Your task to perform on an android device: toggle show notifications on the lock screen Image 0: 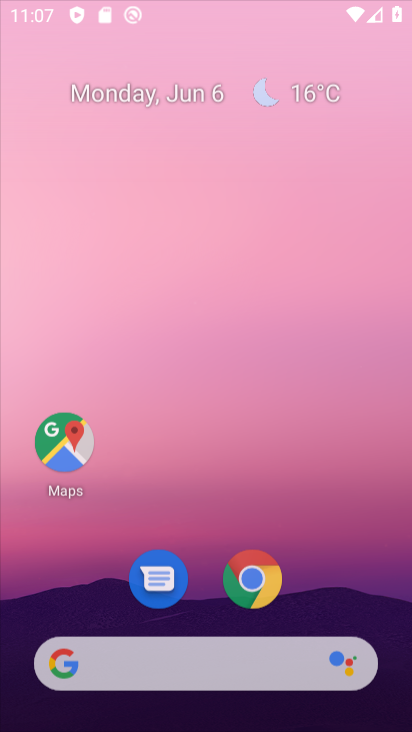
Step 0: press back button
Your task to perform on an android device: toggle show notifications on the lock screen Image 1: 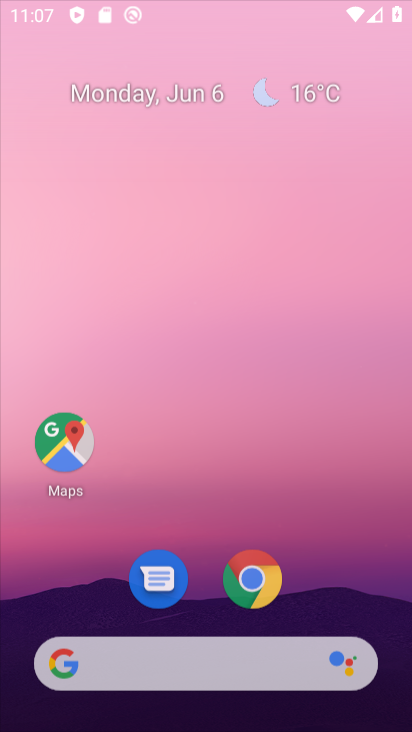
Step 1: drag from (359, 505) to (267, 28)
Your task to perform on an android device: toggle show notifications on the lock screen Image 2: 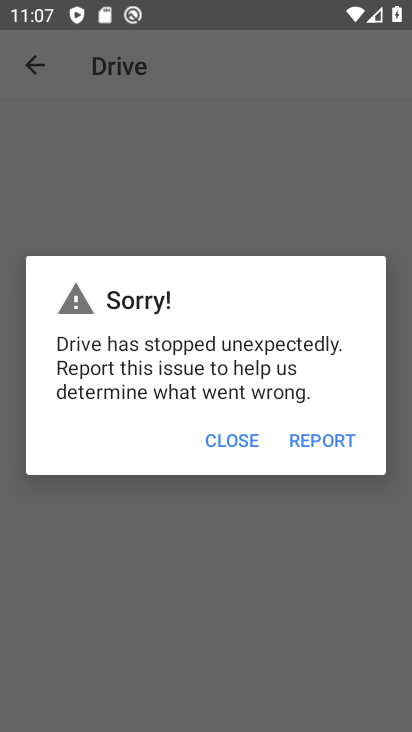
Step 2: press back button
Your task to perform on an android device: toggle show notifications on the lock screen Image 3: 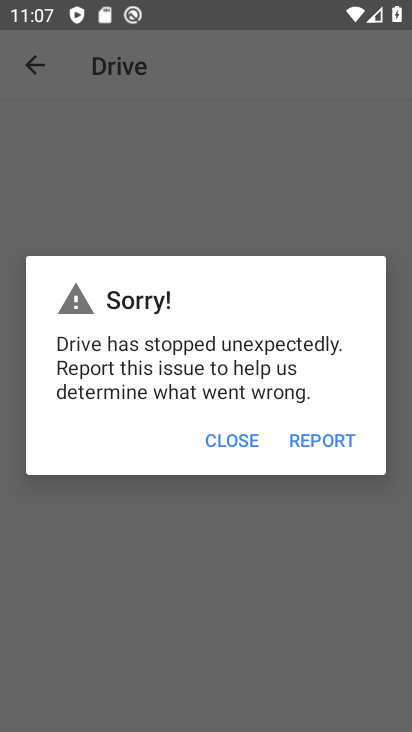
Step 3: press back button
Your task to perform on an android device: toggle show notifications on the lock screen Image 4: 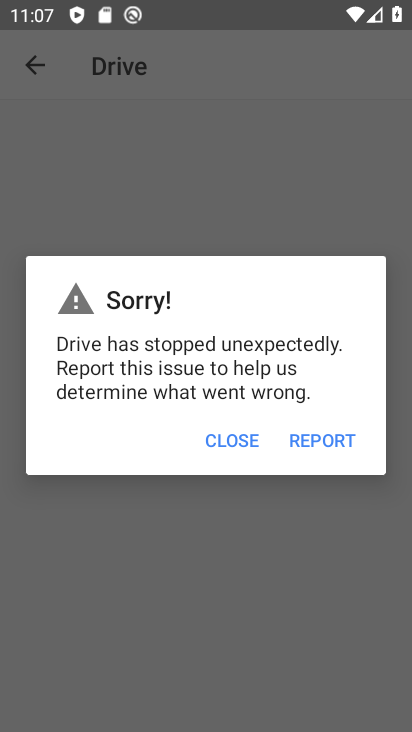
Step 4: press home button
Your task to perform on an android device: toggle show notifications on the lock screen Image 5: 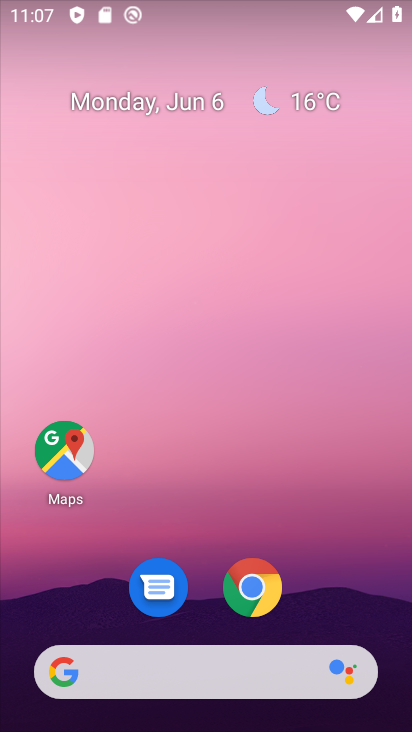
Step 5: drag from (366, 580) to (293, 2)
Your task to perform on an android device: toggle show notifications on the lock screen Image 6: 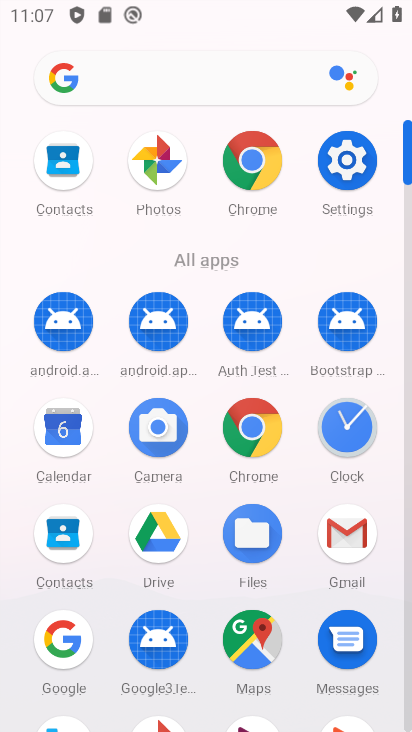
Step 6: drag from (9, 528) to (38, 210)
Your task to perform on an android device: toggle show notifications on the lock screen Image 7: 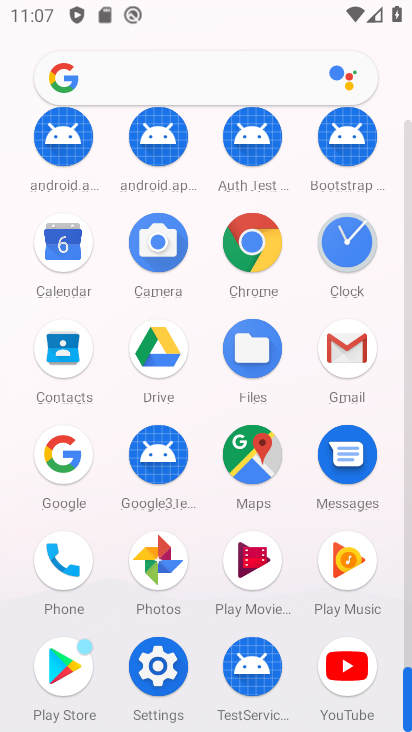
Step 7: click (156, 663)
Your task to perform on an android device: toggle show notifications on the lock screen Image 8: 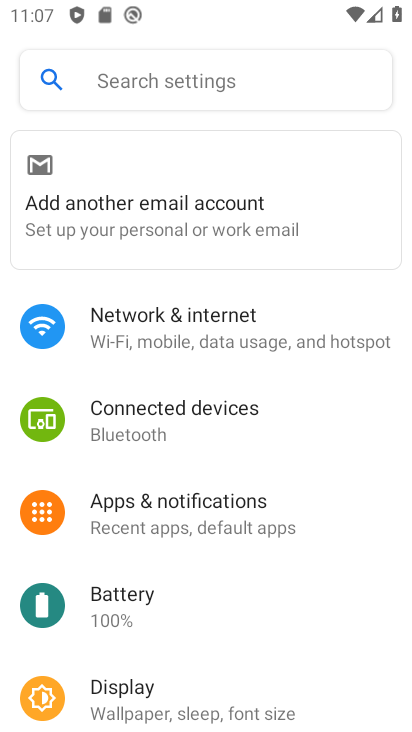
Step 8: click (208, 523)
Your task to perform on an android device: toggle show notifications on the lock screen Image 9: 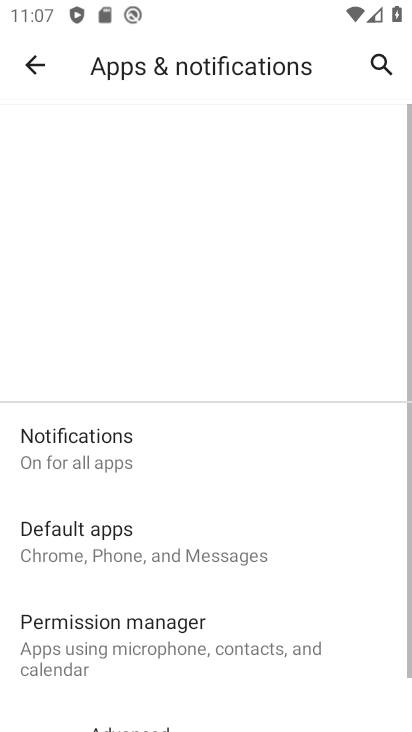
Step 9: click (25, 702)
Your task to perform on an android device: toggle show notifications on the lock screen Image 10: 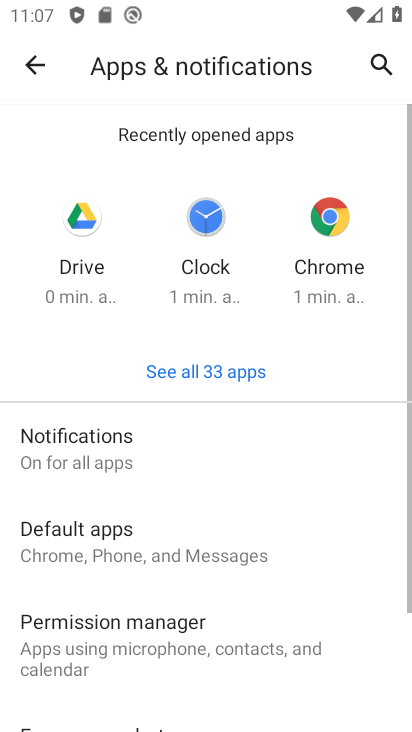
Step 10: drag from (301, 636) to (349, 356)
Your task to perform on an android device: toggle show notifications on the lock screen Image 11: 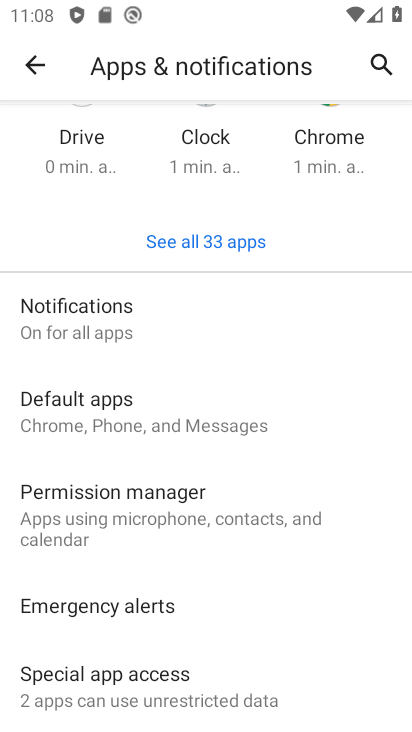
Step 11: click (152, 320)
Your task to perform on an android device: toggle show notifications on the lock screen Image 12: 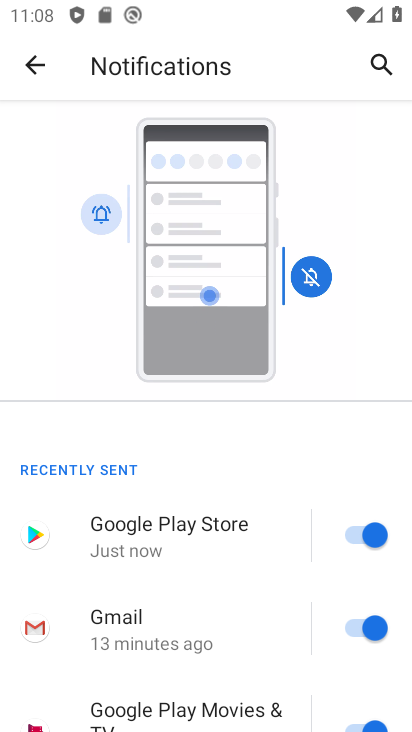
Step 12: drag from (282, 623) to (322, 147)
Your task to perform on an android device: toggle show notifications on the lock screen Image 13: 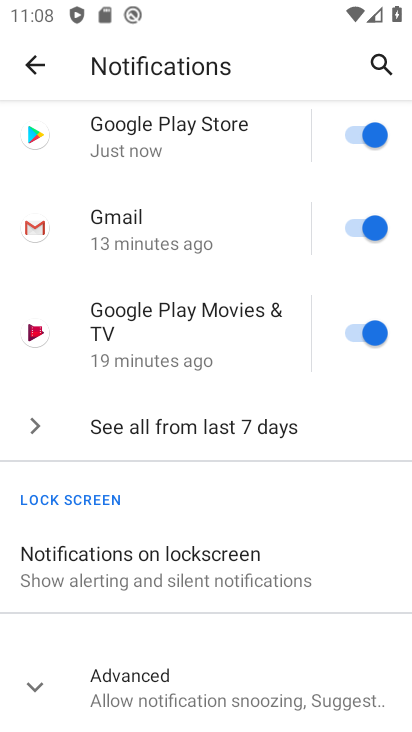
Step 13: click (37, 679)
Your task to perform on an android device: toggle show notifications on the lock screen Image 14: 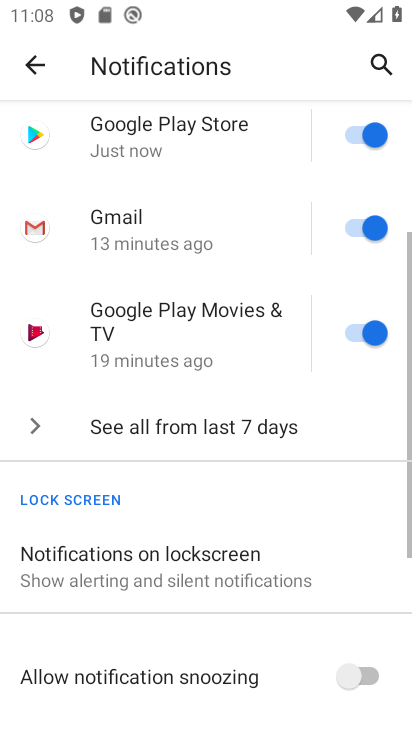
Step 14: drag from (258, 665) to (297, 318)
Your task to perform on an android device: toggle show notifications on the lock screen Image 15: 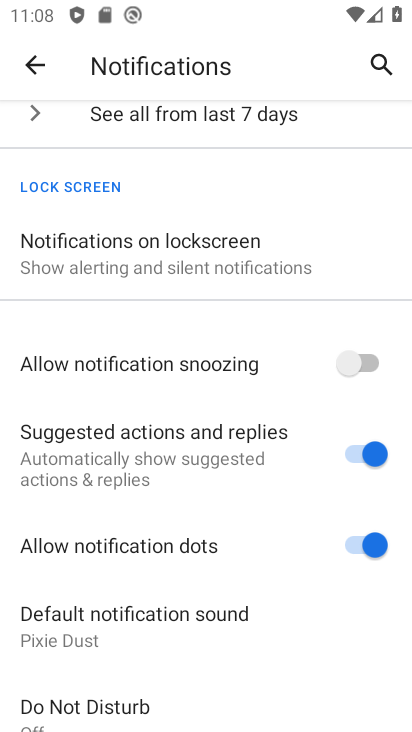
Step 15: click (271, 253)
Your task to perform on an android device: toggle show notifications on the lock screen Image 16: 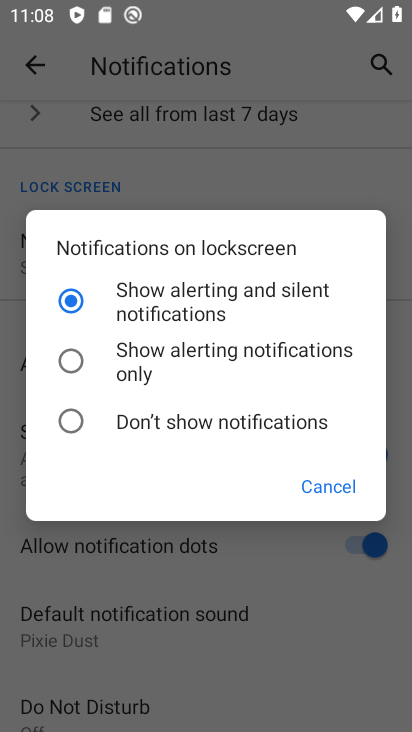
Step 16: click (219, 356)
Your task to perform on an android device: toggle show notifications on the lock screen Image 17: 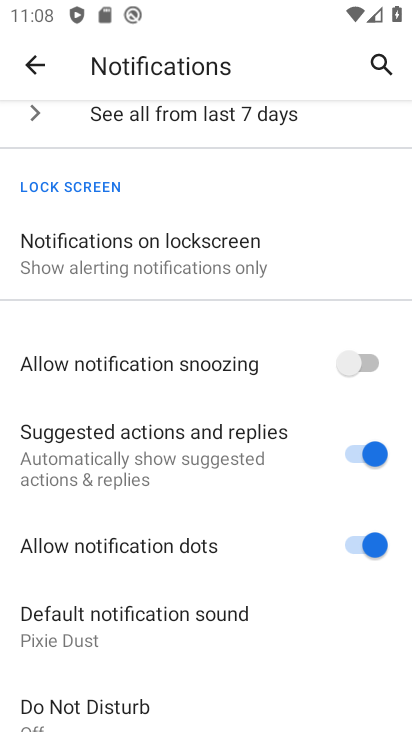
Step 17: task complete